Your task to perform on an android device: Go to network settings Image 0: 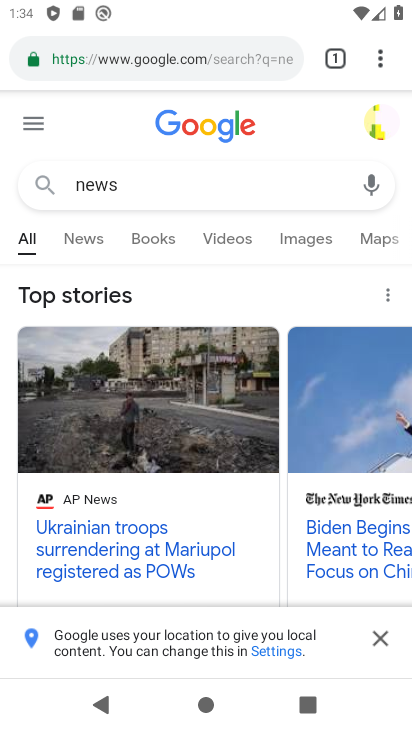
Step 0: press home button
Your task to perform on an android device: Go to network settings Image 1: 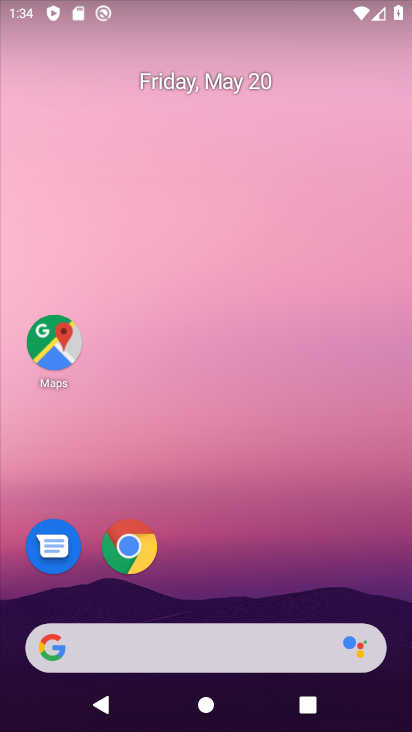
Step 1: drag from (268, 577) to (183, 17)
Your task to perform on an android device: Go to network settings Image 2: 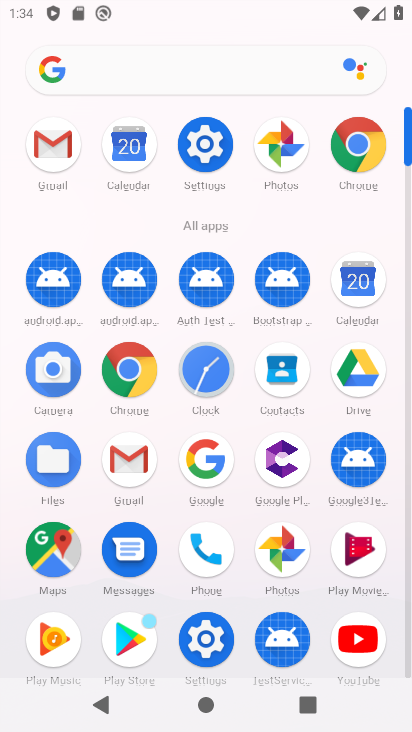
Step 2: click (206, 148)
Your task to perform on an android device: Go to network settings Image 3: 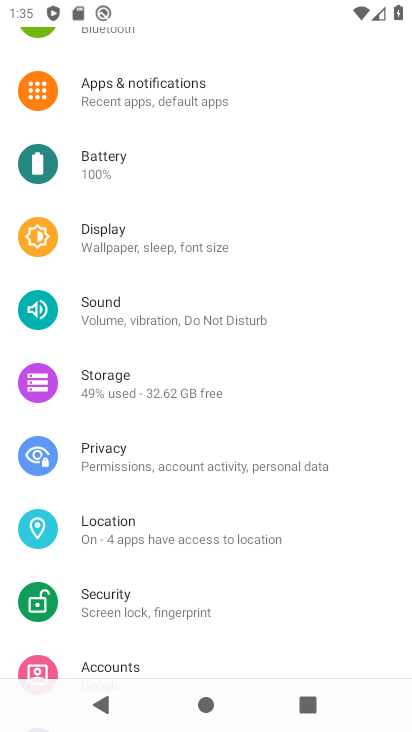
Step 3: drag from (206, 148) to (147, 668)
Your task to perform on an android device: Go to network settings Image 4: 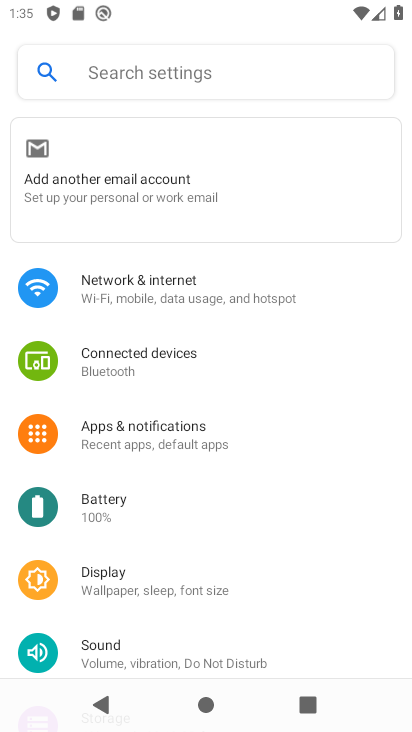
Step 4: click (221, 290)
Your task to perform on an android device: Go to network settings Image 5: 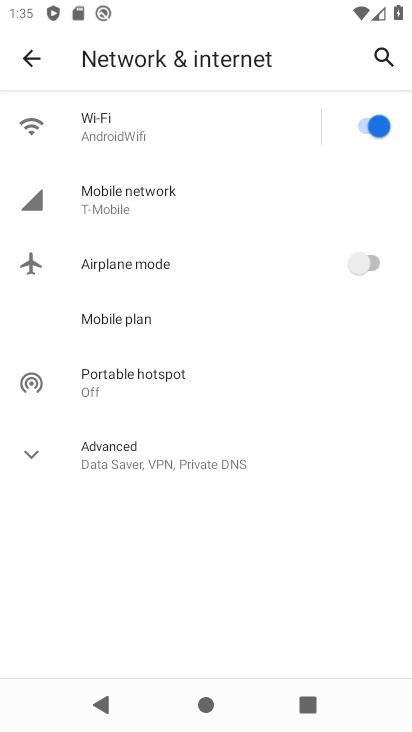
Step 5: task complete